Your task to perform on an android device: delete the emails in spam in the gmail app Image 0: 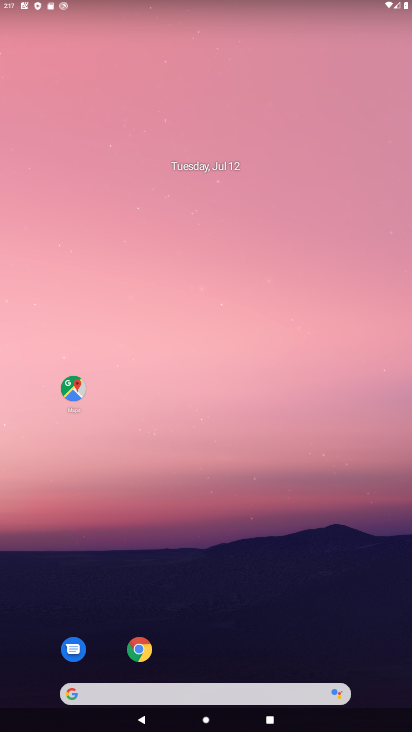
Step 0: click (280, 627)
Your task to perform on an android device: delete the emails in spam in the gmail app Image 1: 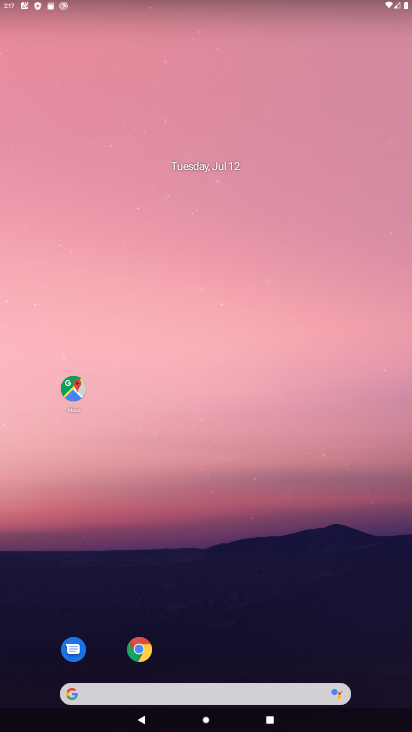
Step 1: drag from (280, 627) to (276, 146)
Your task to perform on an android device: delete the emails in spam in the gmail app Image 2: 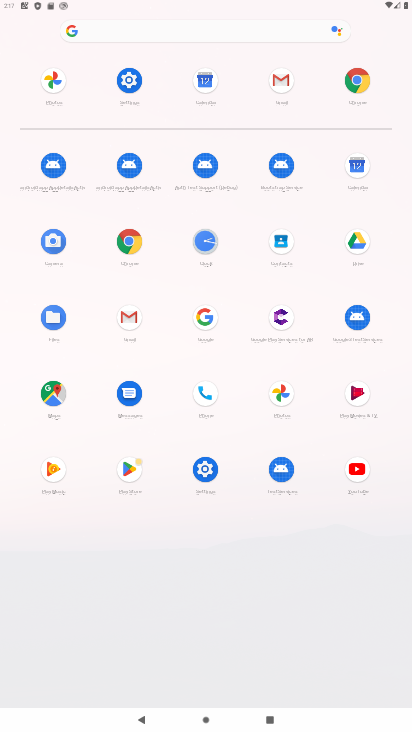
Step 2: click (276, 97)
Your task to perform on an android device: delete the emails in spam in the gmail app Image 3: 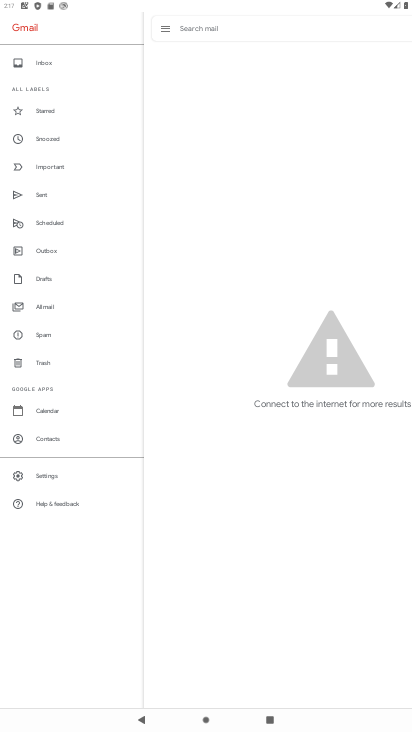
Step 3: click (41, 334)
Your task to perform on an android device: delete the emails in spam in the gmail app Image 4: 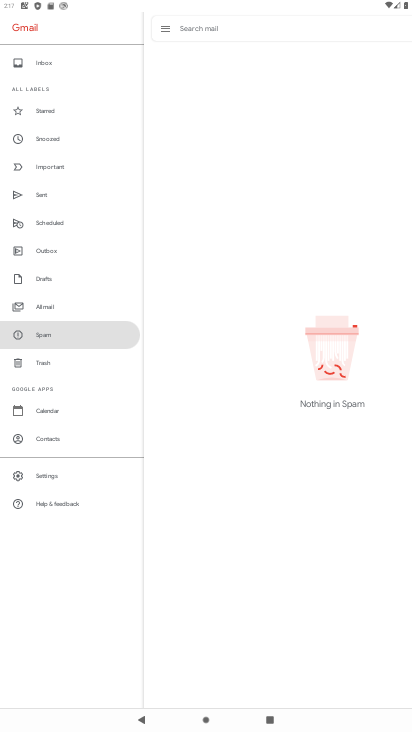
Step 4: task complete